Your task to perform on an android device: Open my contact list Image 0: 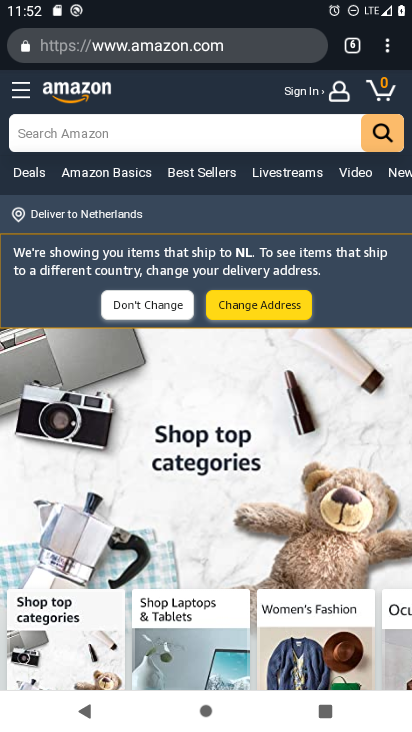
Step 0: press home button
Your task to perform on an android device: Open my contact list Image 1: 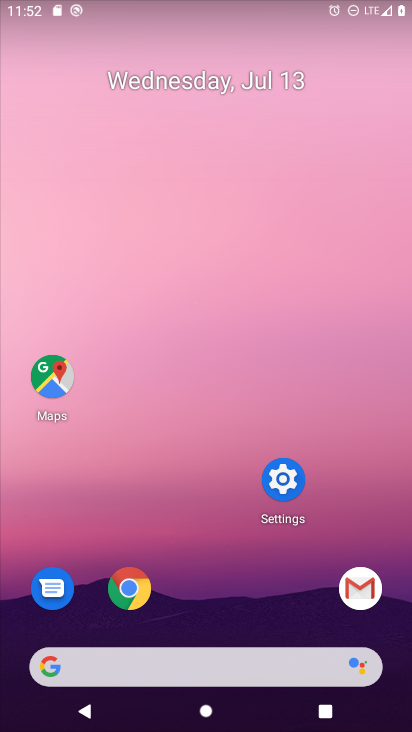
Step 1: drag from (285, 528) to (306, 215)
Your task to perform on an android device: Open my contact list Image 2: 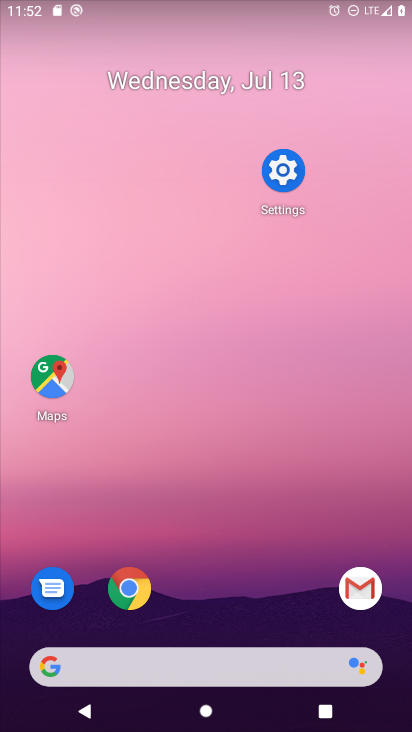
Step 2: drag from (258, 681) to (204, 200)
Your task to perform on an android device: Open my contact list Image 3: 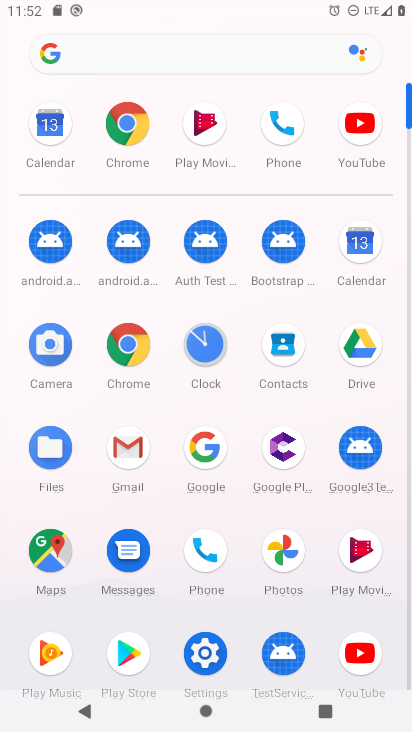
Step 3: click (201, 564)
Your task to perform on an android device: Open my contact list Image 4: 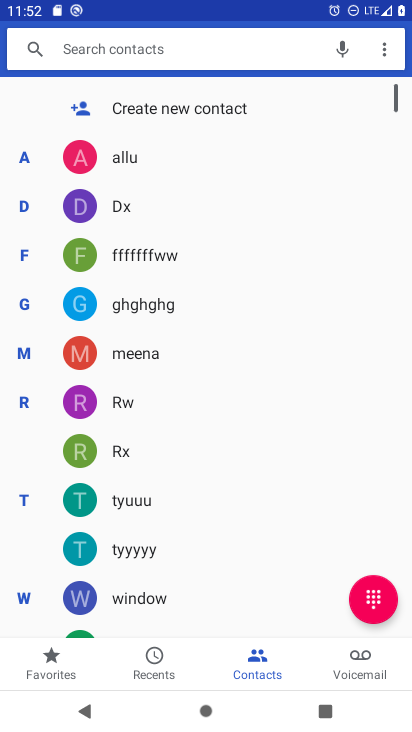
Step 4: click (149, 113)
Your task to perform on an android device: Open my contact list Image 5: 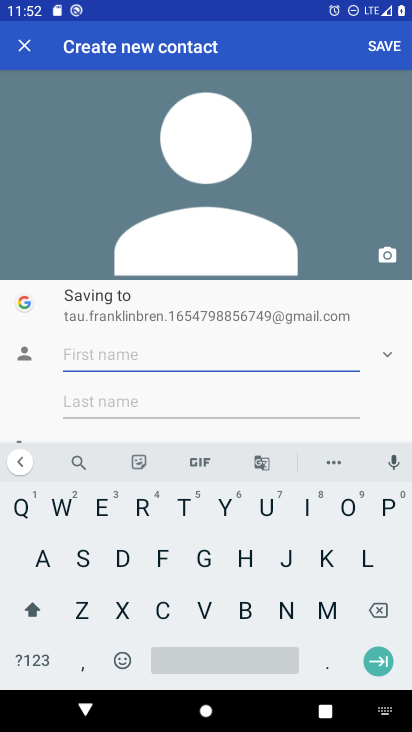
Step 5: click (137, 508)
Your task to perform on an android device: Open my contact list Image 6: 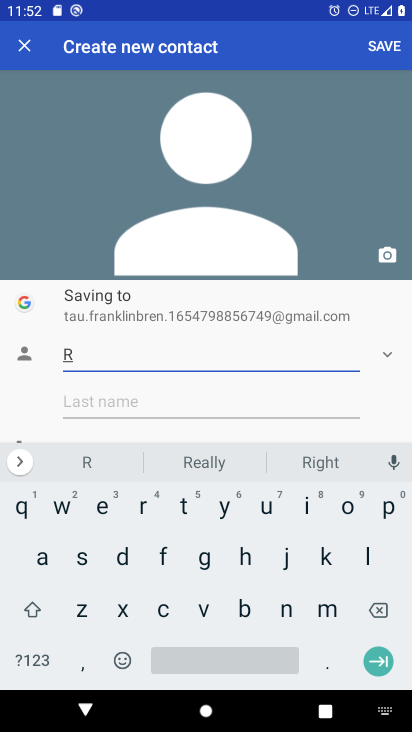
Step 6: click (94, 524)
Your task to perform on an android device: Open my contact list Image 7: 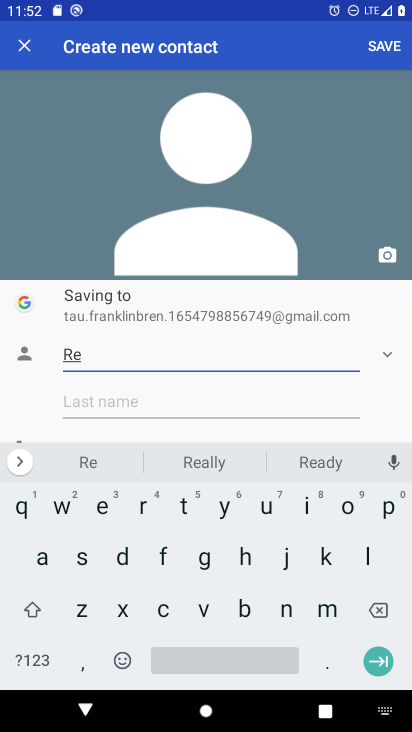
Step 7: click (123, 559)
Your task to perform on an android device: Open my contact list Image 8: 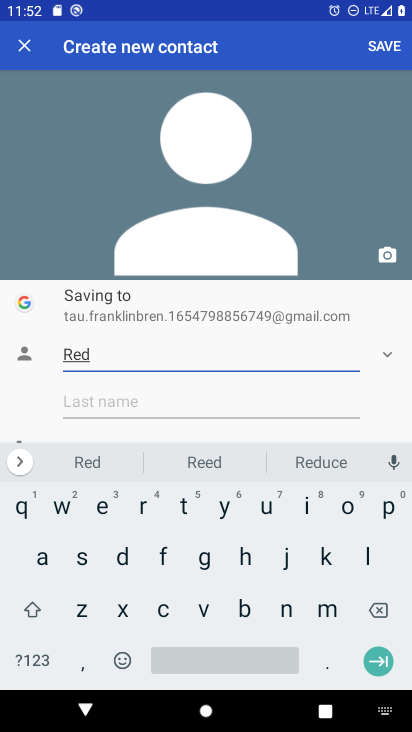
Step 8: click (137, 426)
Your task to perform on an android device: Open my contact list Image 9: 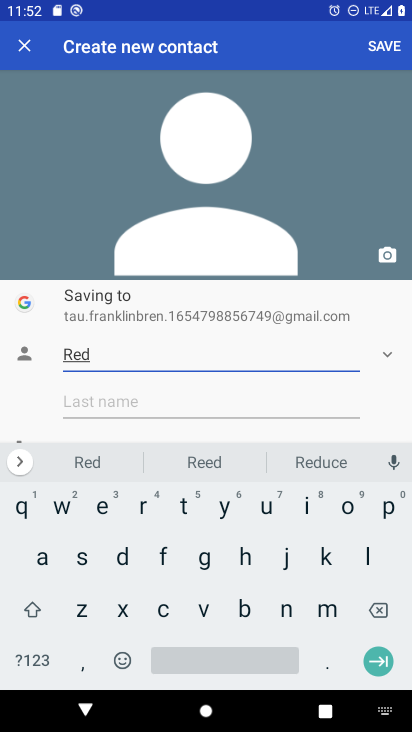
Step 9: click (94, 427)
Your task to perform on an android device: Open my contact list Image 10: 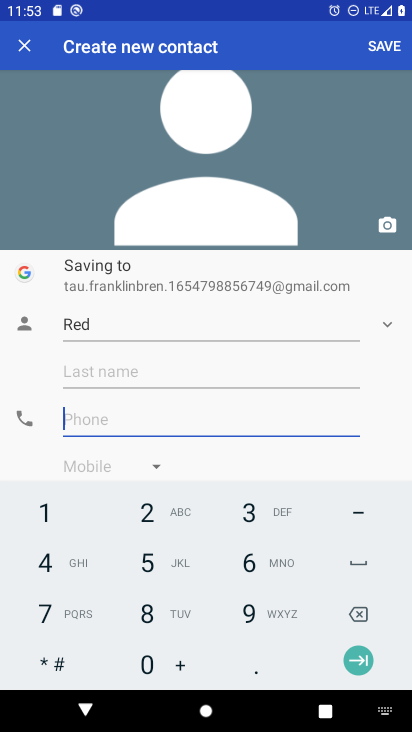
Step 10: click (205, 513)
Your task to perform on an android device: Open my contact list Image 11: 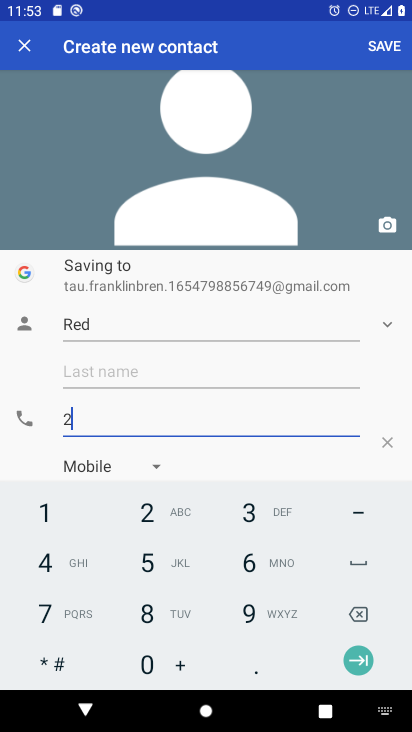
Step 11: click (150, 568)
Your task to perform on an android device: Open my contact list Image 12: 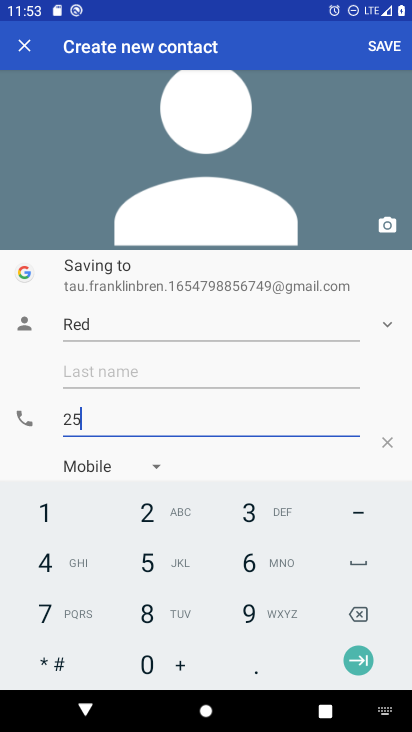
Step 12: click (223, 539)
Your task to perform on an android device: Open my contact list Image 13: 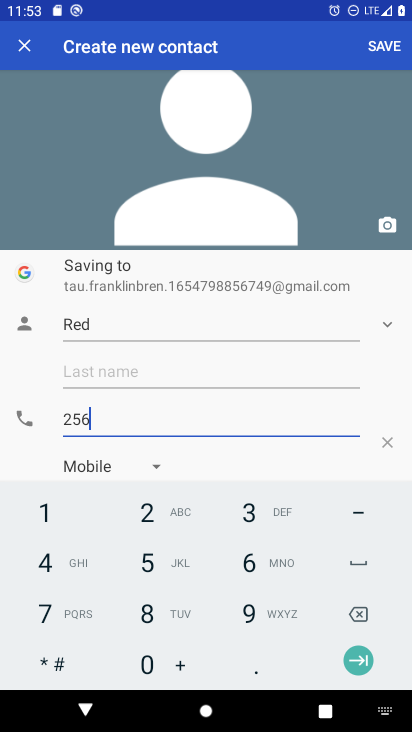
Step 13: drag from (33, 558) to (128, 487)
Your task to perform on an android device: Open my contact list Image 14: 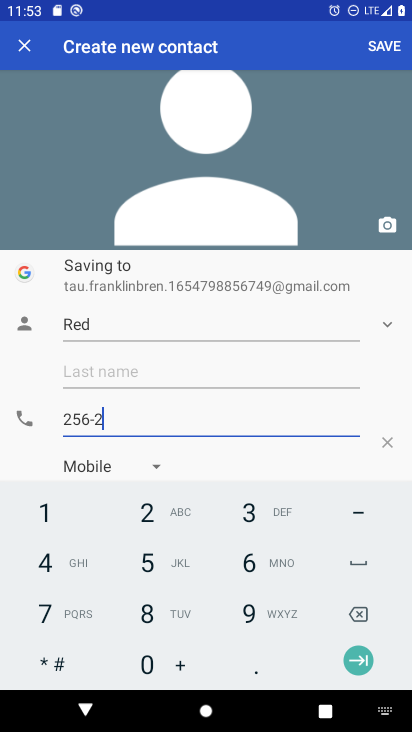
Step 14: click (88, 541)
Your task to perform on an android device: Open my contact list Image 15: 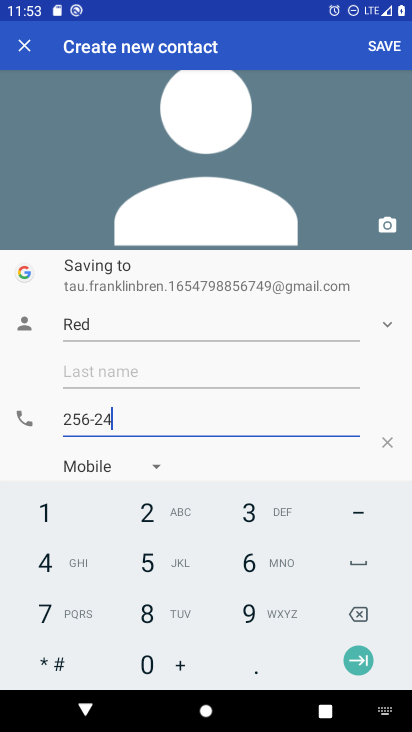
Step 15: click (52, 509)
Your task to perform on an android device: Open my contact list Image 16: 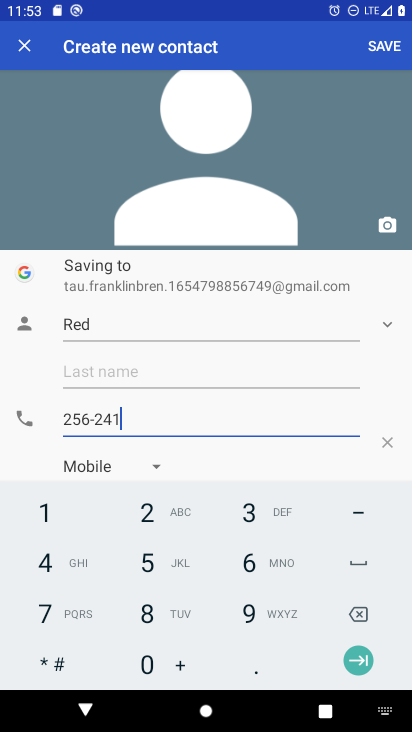
Step 16: click (260, 619)
Your task to perform on an android device: Open my contact list Image 17: 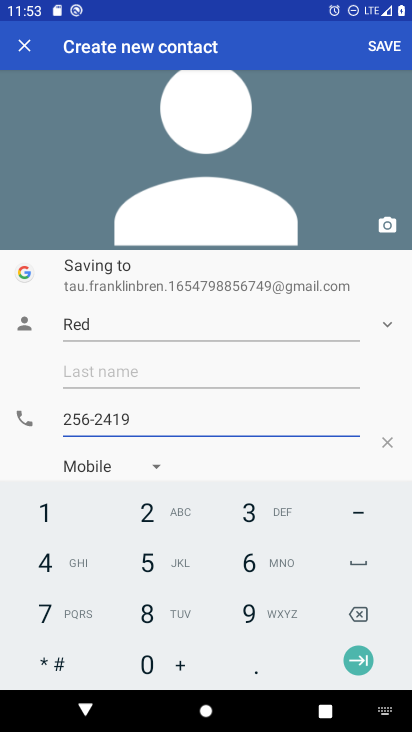
Step 17: click (372, 48)
Your task to perform on an android device: Open my contact list Image 18: 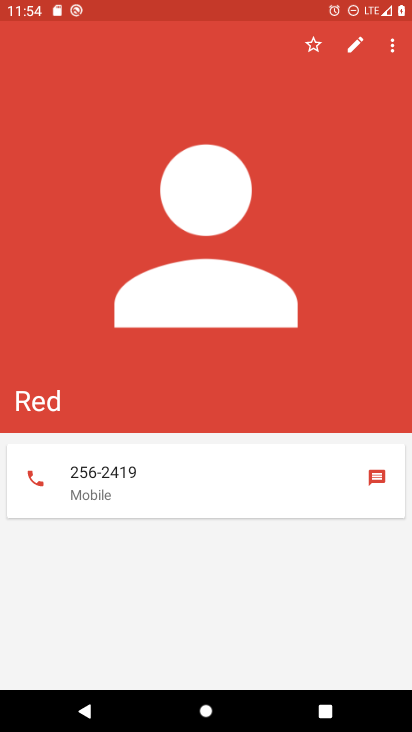
Step 18: task complete